Your task to perform on an android device: Open the stopwatch Image 0: 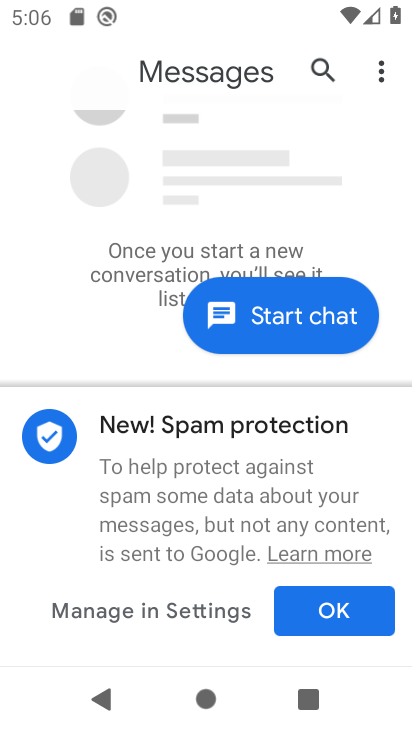
Step 0: press home button
Your task to perform on an android device: Open the stopwatch Image 1: 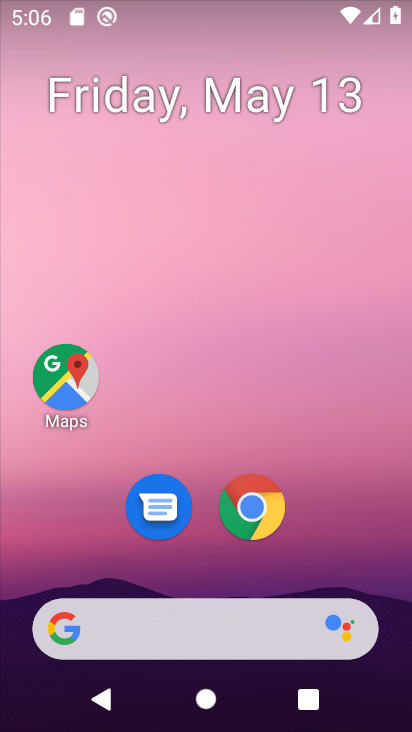
Step 1: drag from (336, 533) to (253, 53)
Your task to perform on an android device: Open the stopwatch Image 2: 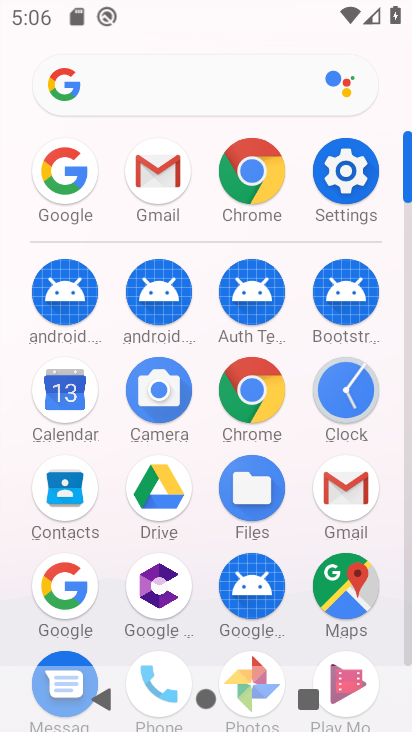
Step 2: click (352, 353)
Your task to perform on an android device: Open the stopwatch Image 3: 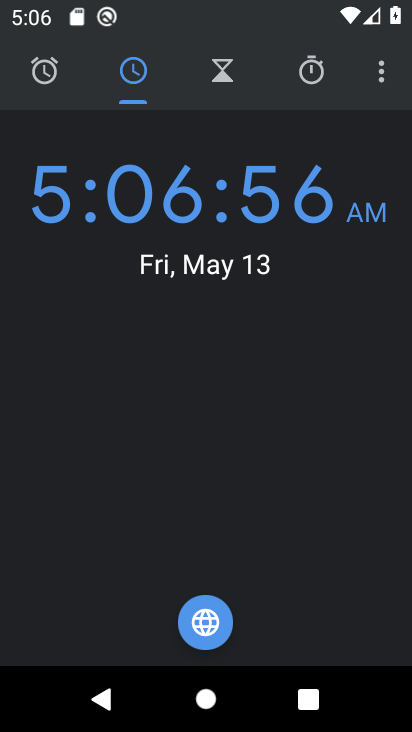
Step 3: click (300, 65)
Your task to perform on an android device: Open the stopwatch Image 4: 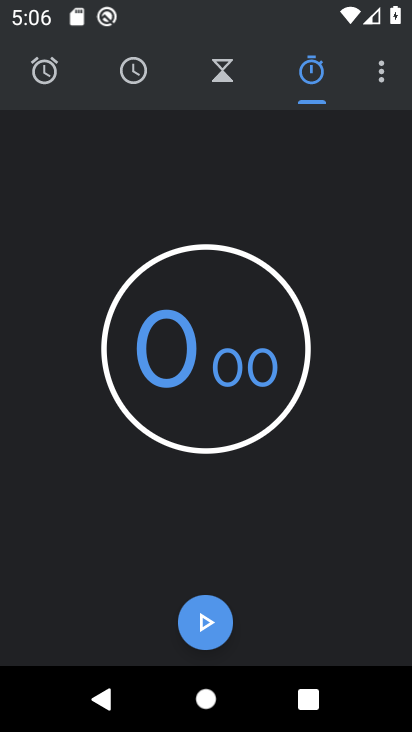
Step 4: task complete